Your task to perform on an android device: toggle javascript in the chrome app Image 0: 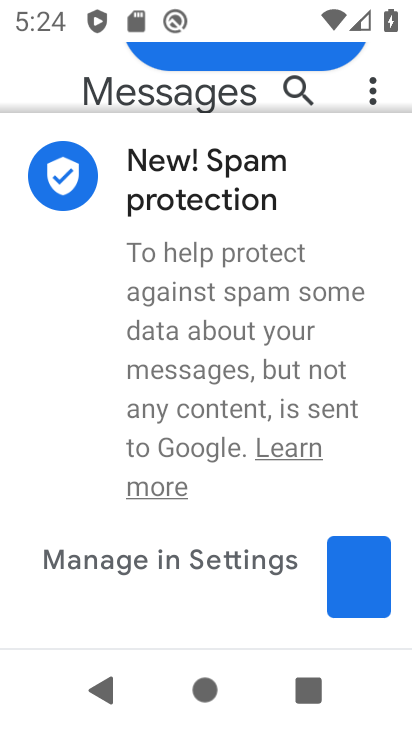
Step 0: press back button
Your task to perform on an android device: toggle javascript in the chrome app Image 1: 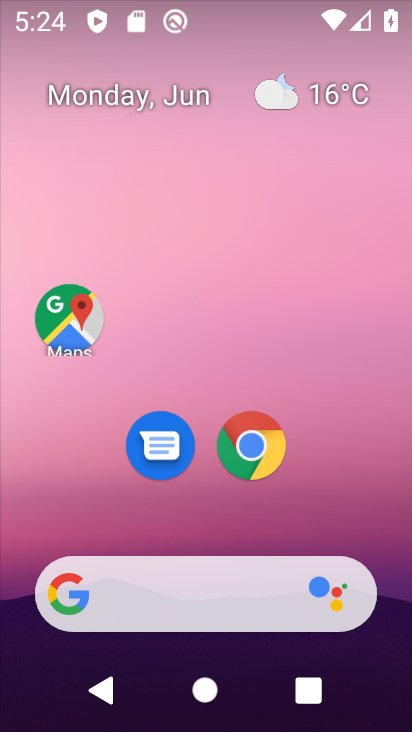
Step 1: click (254, 449)
Your task to perform on an android device: toggle javascript in the chrome app Image 2: 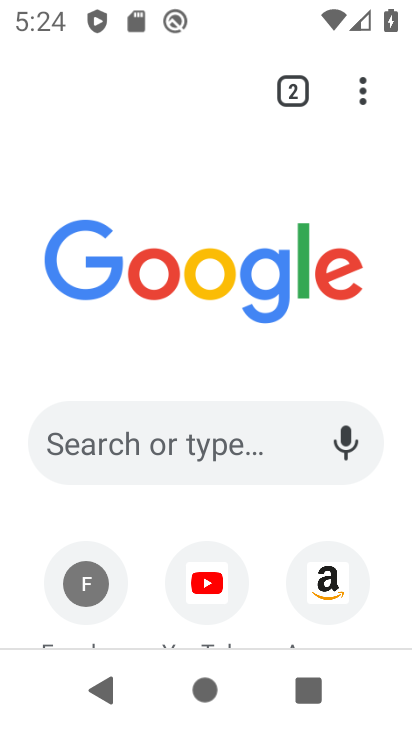
Step 2: click (364, 92)
Your task to perform on an android device: toggle javascript in the chrome app Image 3: 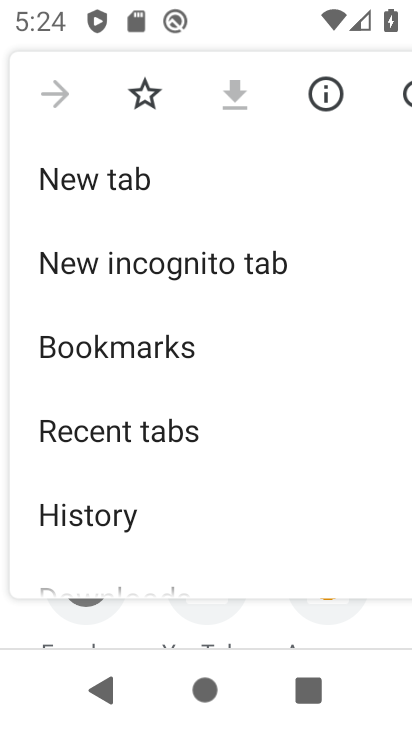
Step 3: drag from (154, 477) to (260, 278)
Your task to perform on an android device: toggle javascript in the chrome app Image 4: 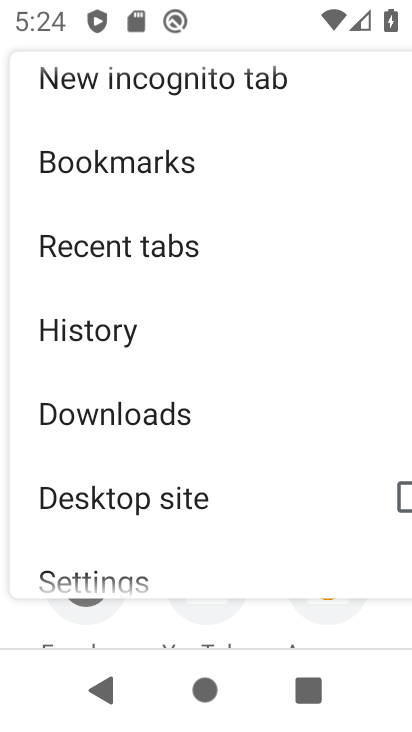
Step 4: drag from (193, 474) to (301, 308)
Your task to perform on an android device: toggle javascript in the chrome app Image 5: 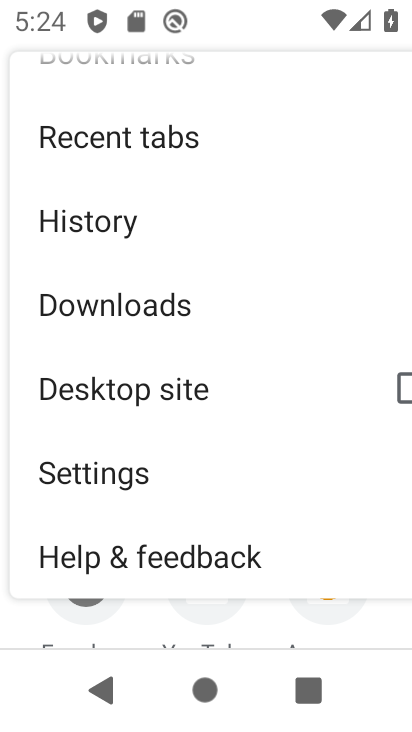
Step 5: click (131, 476)
Your task to perform on an android device: toggle javascript in the chrome app Image 6: 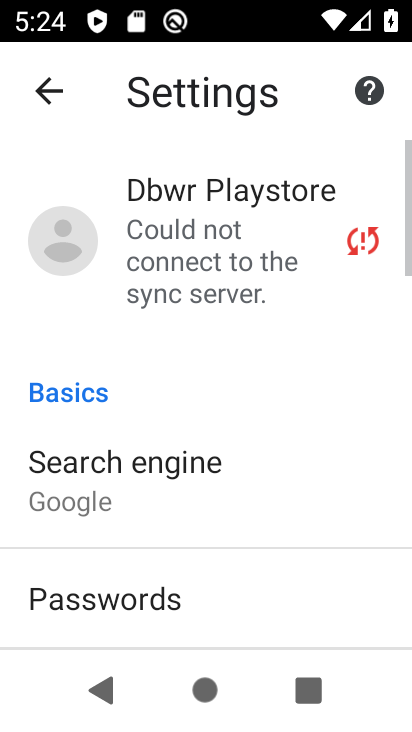
Step 6: drag from (198, 583) to (331, 285)
Your task to perform on an android device: toggle javascript in the chrome app Image 7: 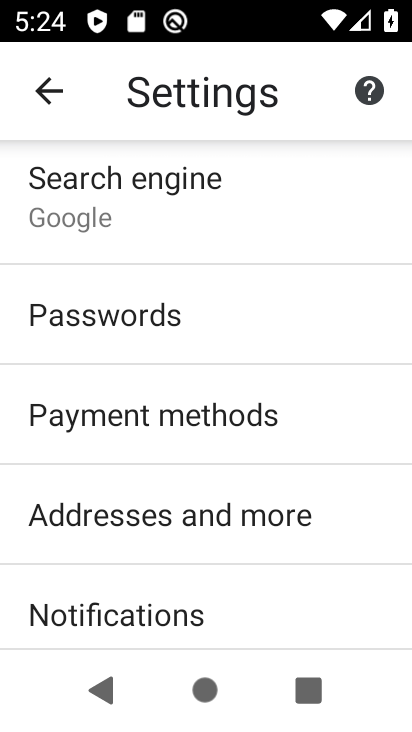
Step 7: drag from (236, 565) to (358, 211)
Your task to perform on an android device: toggle javascript in the chrome app Image 8: 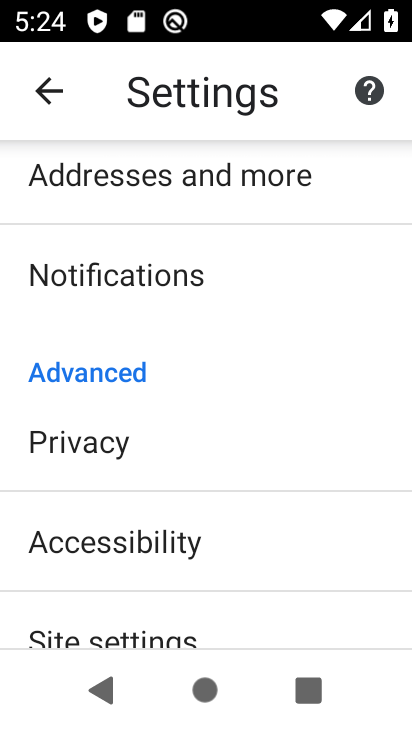
Step 8: drag from (194, 567) to (340, 295)
Your task to perform on an android device: toggle javascript in the chrome app Image 9: 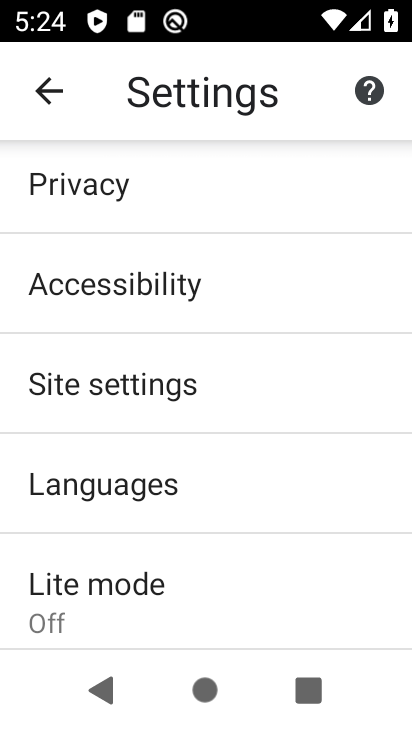
Step 9: click (188, 402)
Your task to perform on an android device: toggle javascript in the chrome app Image 10: 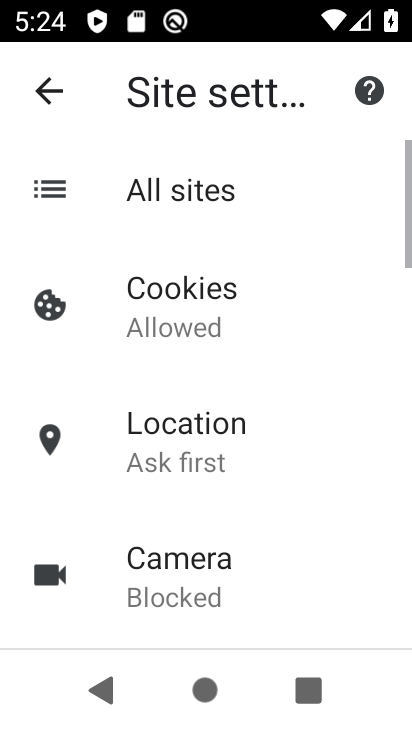
Step 10: drag from (221, 577) to (318, 222)
Your task to perform on an android device: toggle javascript in the chrome app Image 11: 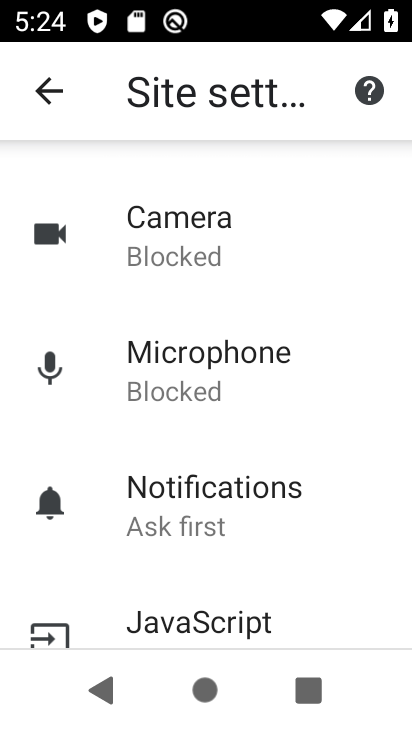
Step 11: drag from (223, 541) to (309, 345)
Your task to perform on an android device: toggle javascript in the chrome app Image 12: 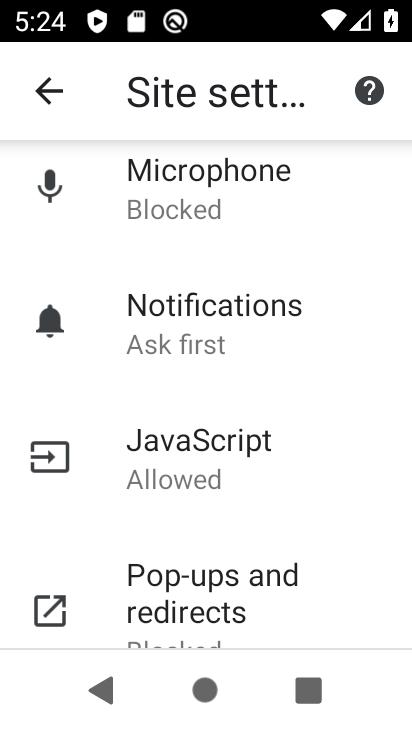
Step 12: click (236, 476)
Your task to perform on an android device: toggle javascript in the chrome app Image 13: 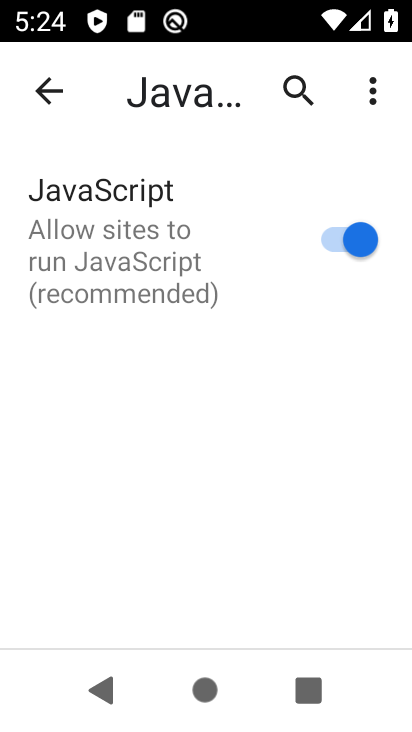
Step 13: click (354, 227)
Your task to perform on an android device: toggle javascript in the chrome app Image 14: 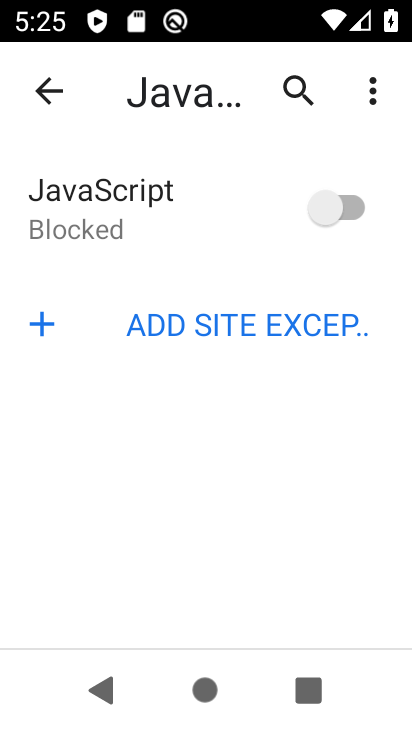
Step 14: task complete